Your task to perform on an android device: turn on wifi Image 0: 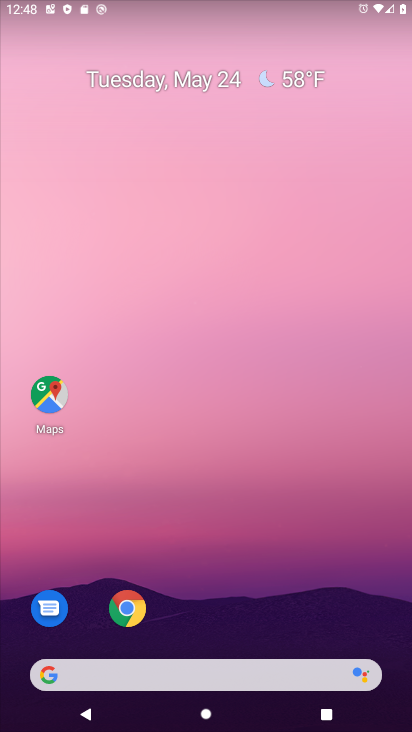
Step 0: drag from (289, 699) to (234, 0)
Your task to perform on an android device: turn on wifi Image 1: 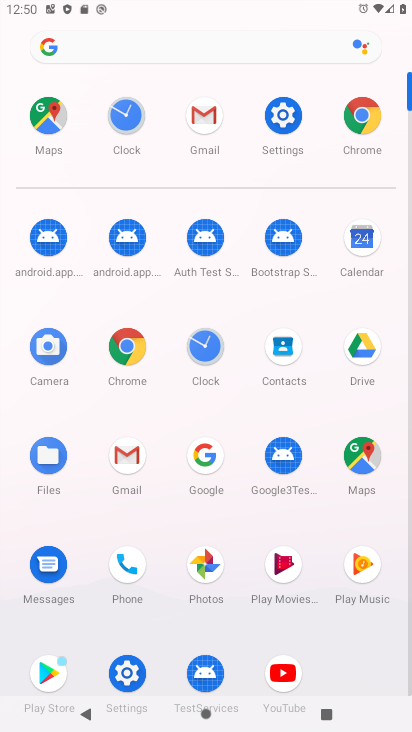
Step 1: click (287, 134)
Your task to perform on an android device: turn on wifi Image 2: 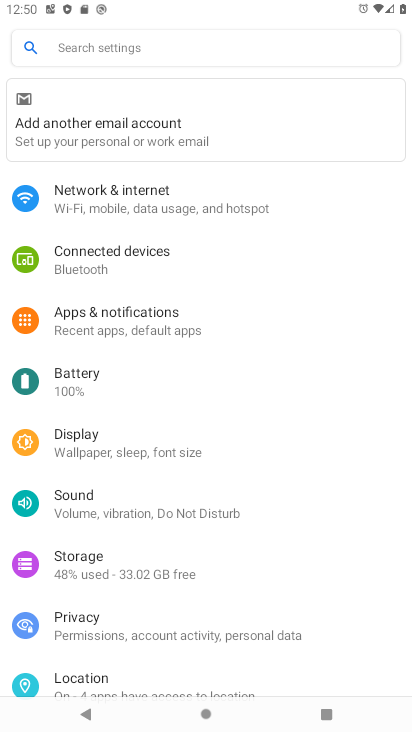
Step 2: click (143, 217)
Your task to perform on an android device: turn on wifi Image 3: 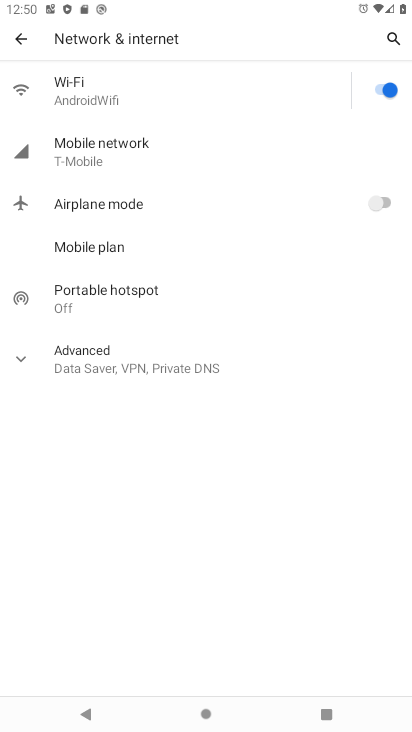
Step 3: click (383, 85)
Your task to perform on an android device: turn on wifi Image 4: 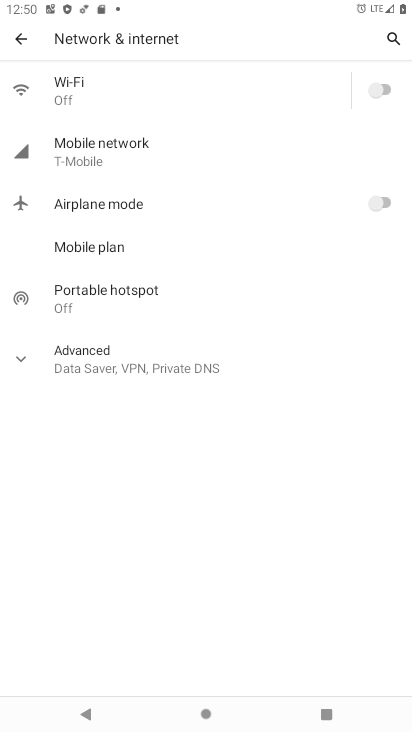
Step 4: task complete